Your task to perform on an android device: change the clock display to analog Image 0: 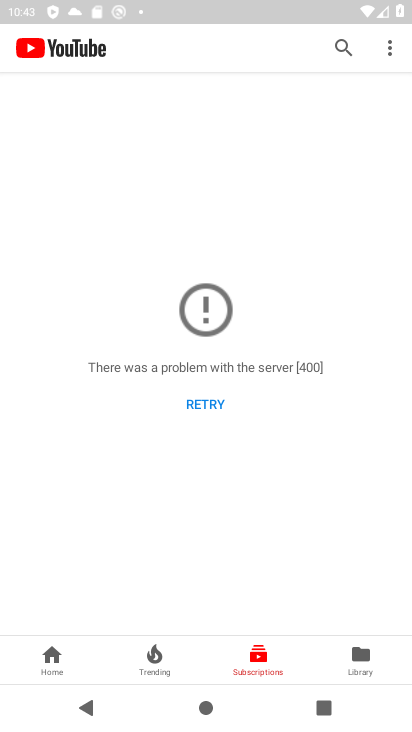
Step 0: press home button
Your task to perform on an android device: change the clock display to analog Image 1: 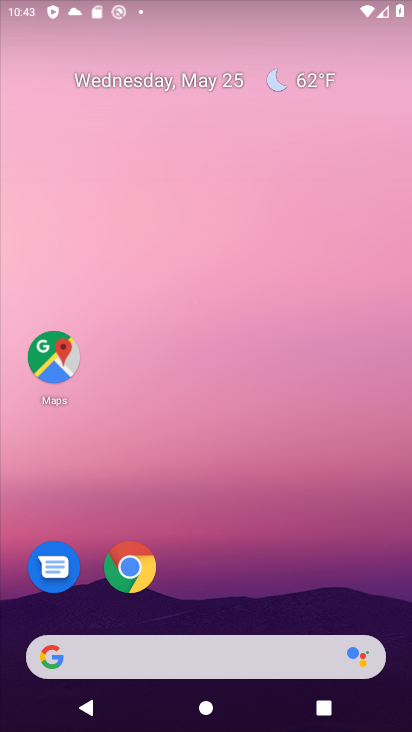
Step 1: drag from (372, 607) to (259, 47)
Your task to perform on an android device: change the clock display to analog Image 2: 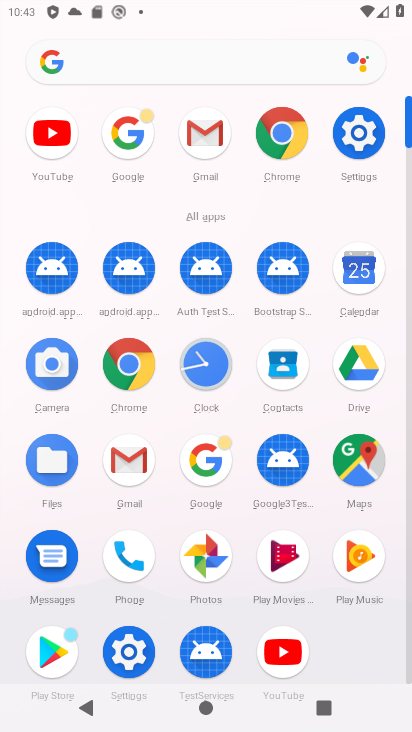
Step 2: click (194, 367)
Your task to perform on an android device: change the clock display to analog Image 3: 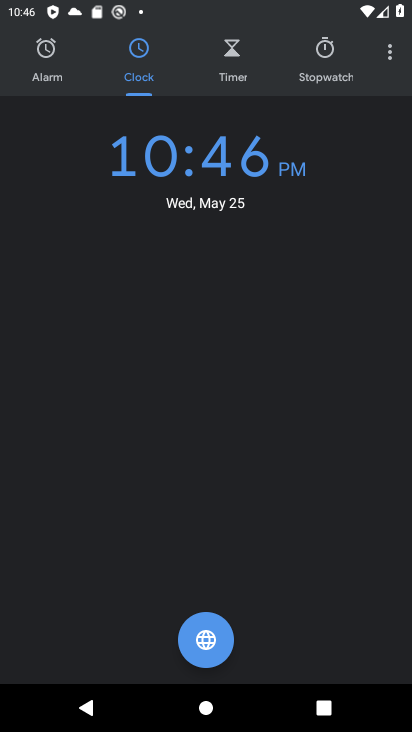
Step 3: click (391, 57)
Your task to perform on an android device: change the clock display to analog Image 4: 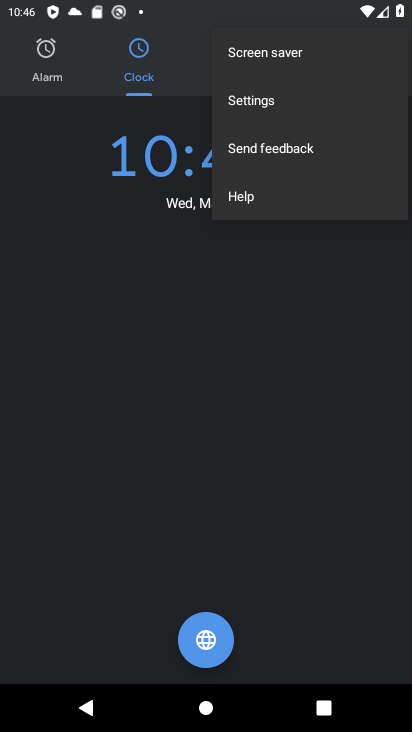
Step 4: click (270, 104)
Your task to perform on an android device: change the clock display to analog Image 5: 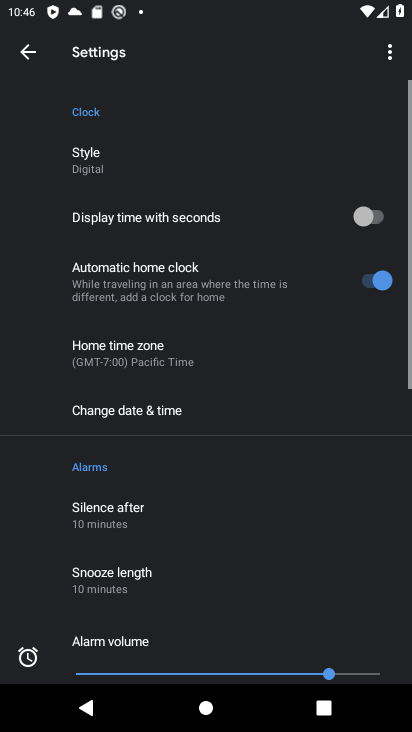
Step 5: click (191, 169)
Your task to perform on an android device: change the clock display to analog Image 6: 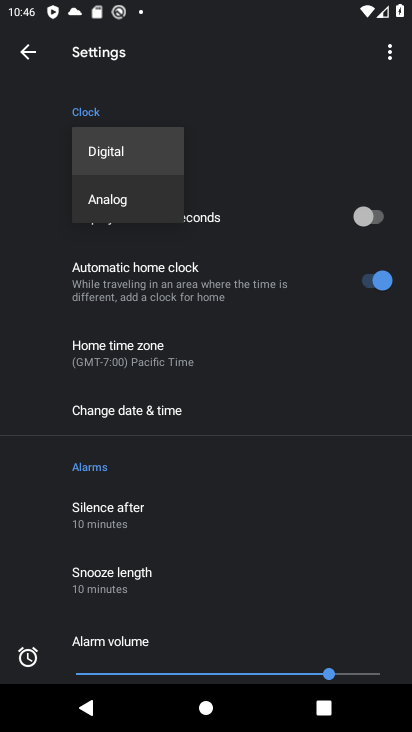
Step 6: click (135, 201)
Your task to perform on an android device: change the clock display to analog Image 7: 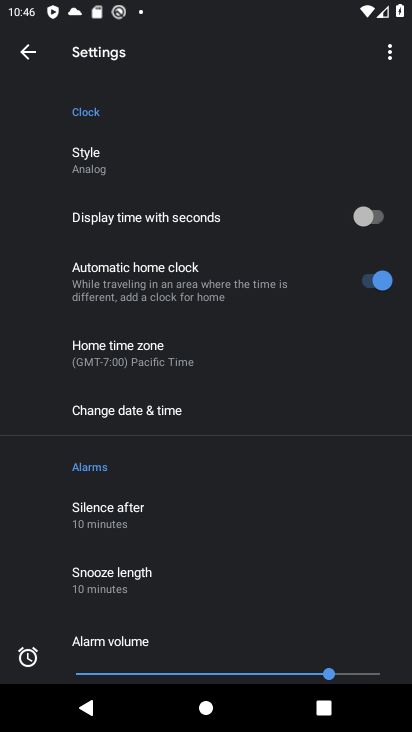
Step 7: task complete